Your task to perform on an android device: allow cookies in the chrome app Image 0: 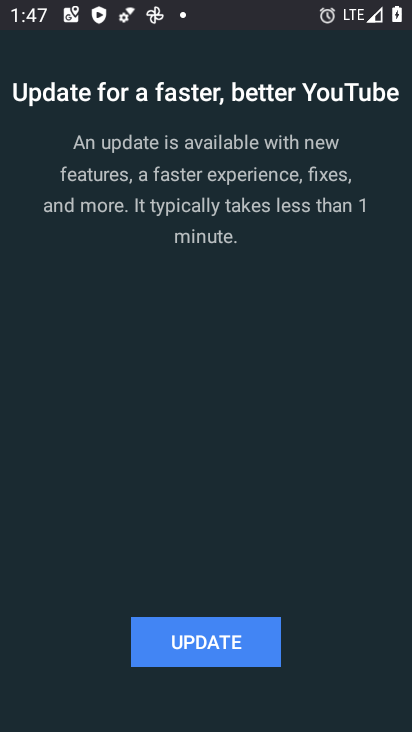
Step 0: click (374, 547)
Your task to perform on an android device: allow cookies in the chrome app Image 1: 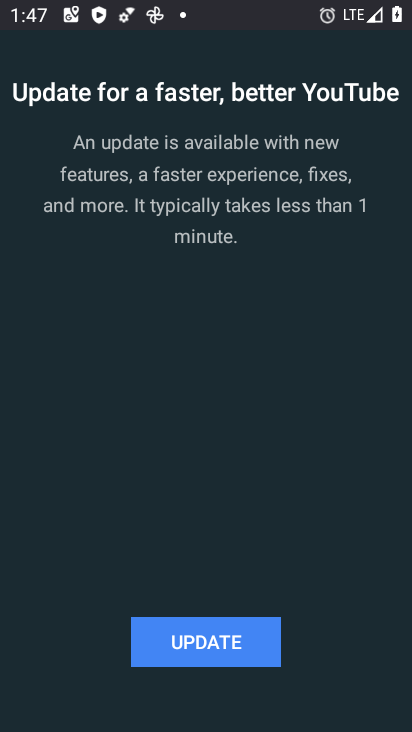
Step 1: press back button
Your task to perform on an android device: allow cookies in the chrome app Image 2: 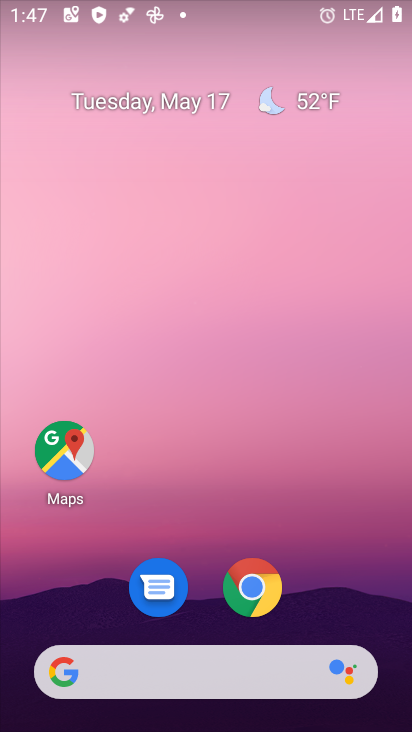
Step 2: click (254, 590)
Your task to perform on an android device: allow cookies in the chrome app Image 3: 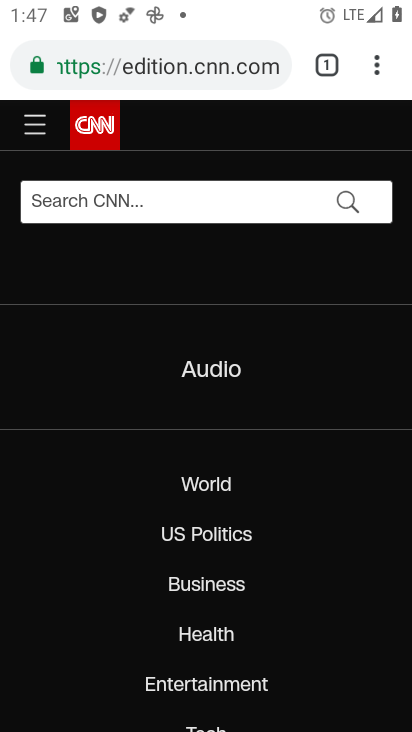
Step 3: click (384, 74)
Your task to perform on an android device: allow cookies in the chrome app Image 4: 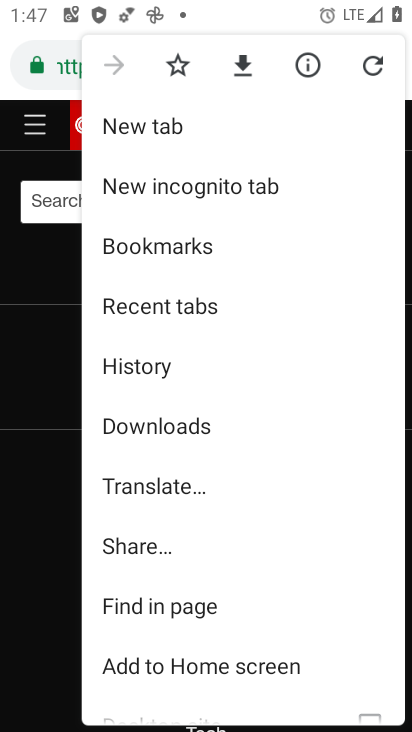
Step 4: drag from (240, 545) to (213, 400)
Your task to perform on an android device: allow cookies in the chrome app Image 5: 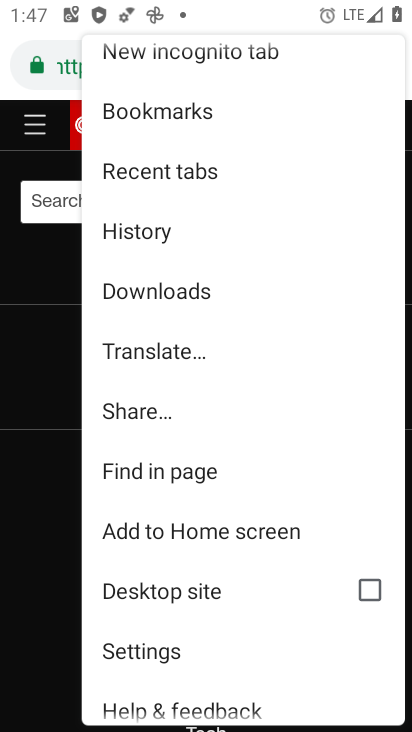
Step 5: click (187, 638)
Your task to perform on an android device: allow cookies in the chrome app Image 6: 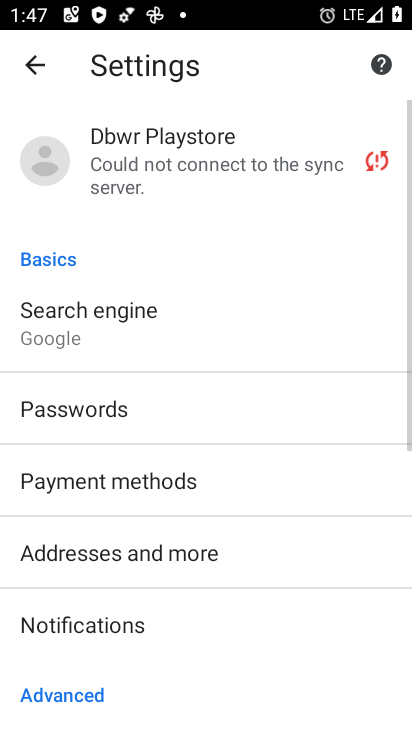
Step 6: drag from (187, 638) to (176, 490)
Your task to perform on an android device: allow cookies in the chrome app Image 7: 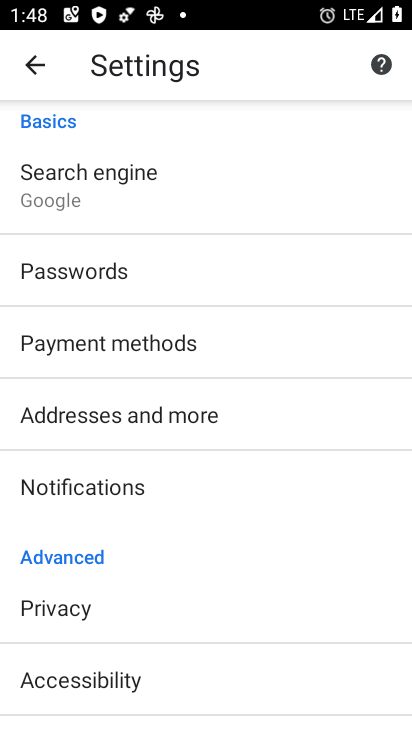
Step 7: click (175, 579)
Your task to perform on an android device: allow cookies in the chrome app Image 8: 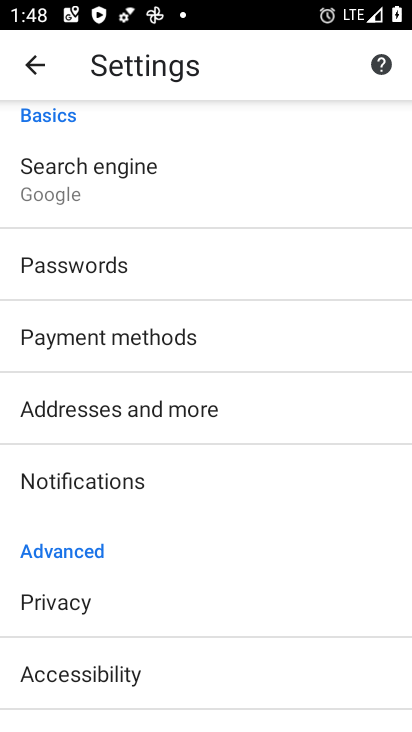
Step 8: drag from (182, 612) to (174, 365)
Your task to perform on an android device: allow cookies in the chrome app Image 9: 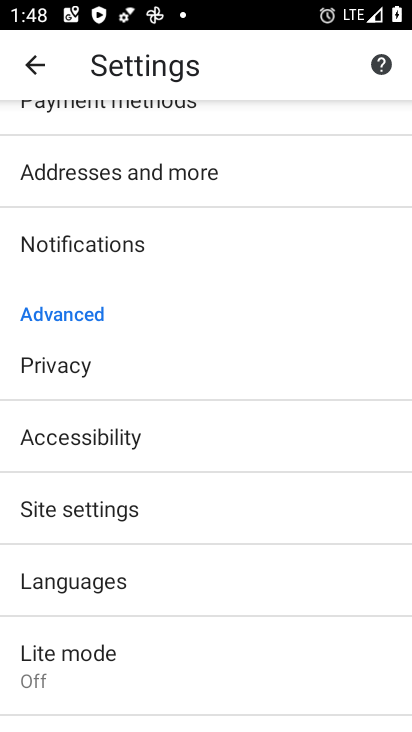
Step 9: click (166, 492)
Your task to perform on an android device: allow cookies in the chrome app Image 10: 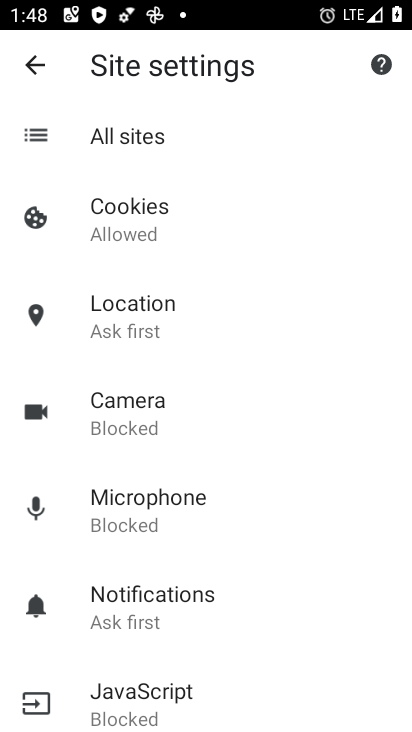
Step 10: task complete